Your task to perform on an android device: Go to Yahoo.com Image 0: 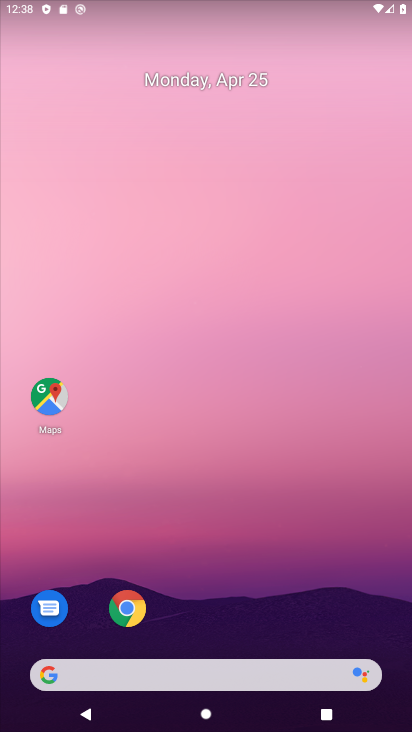
Step 0: click (138, 614)
Your task to perform on an android device: Go to Yahoo.com Image 1: 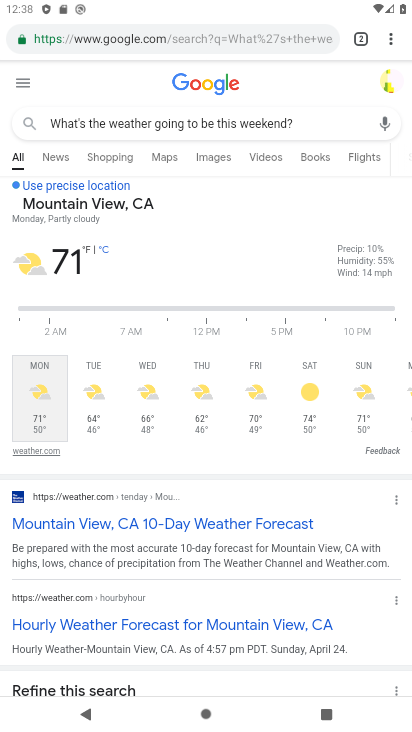
Step 1: click (366, 38)
Your task to perform on an android device: Go to Yahoo.com Image 2: 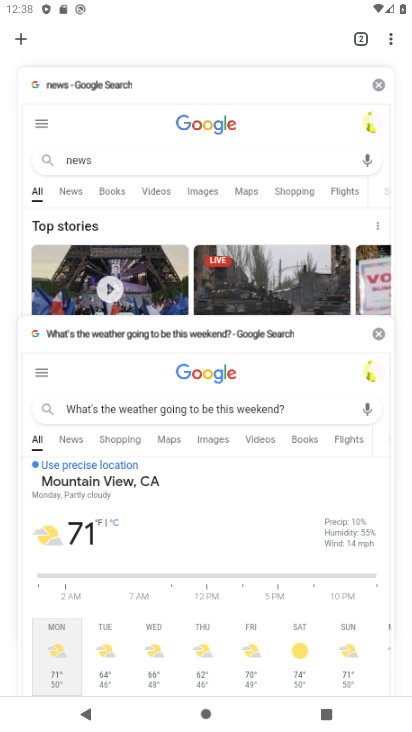
Step 2: click (25, 43)
Your task to perform on an android device: Go to Yahoo.com Image 3: 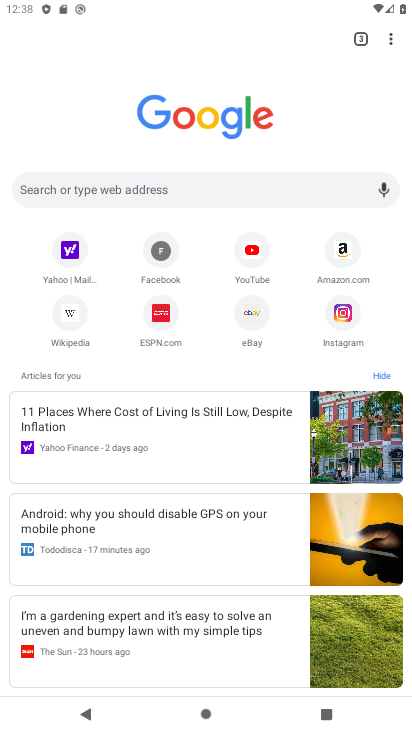
Step 3: click (71, 269)
Your task to perform on an android device: Go to Yahoo.com Image 4: 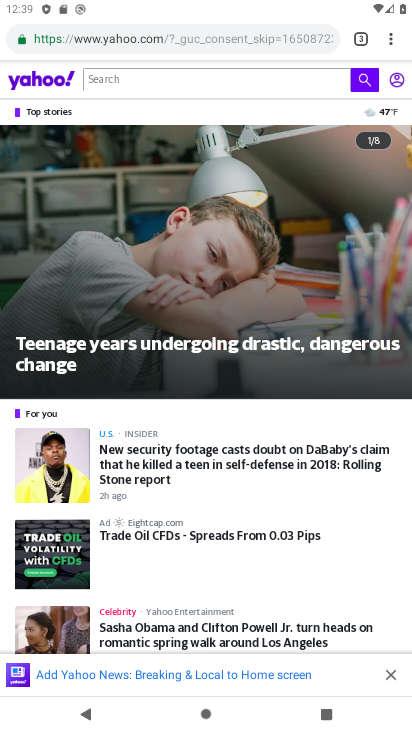
Step 4: task complete